Your task to perform on an android device: Show me recent news Image 0: 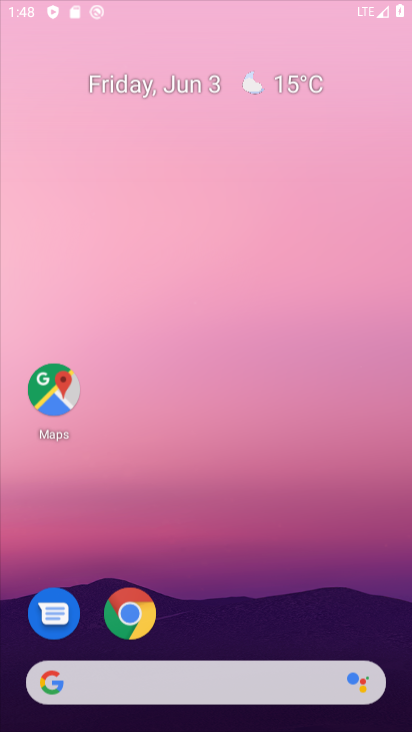
Step 0: click (310, 284)
Your task to perform on an android device: Show me recent news Image 1: 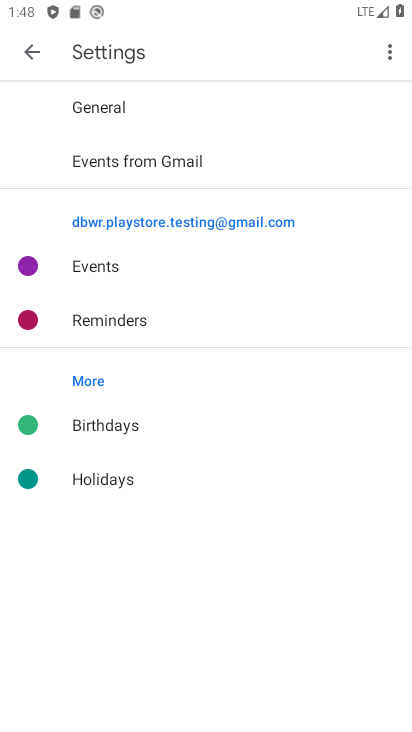
Step 1: press home button
Your task to perform on an android device: Show me recent news Image 2: 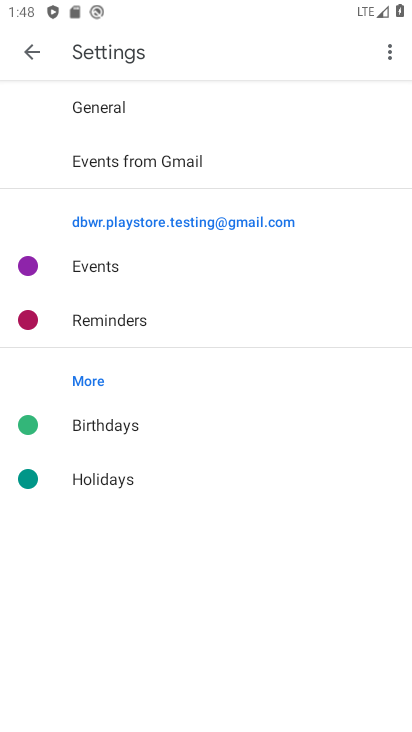
Step 2: drag from (217, 423) to (217, 115)
Your task to perform on an android device: Show me recent news Image 3: 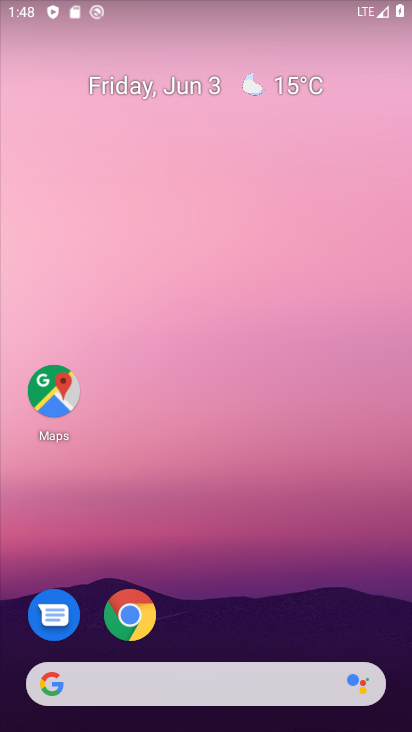
Step 3: drag from (214, 626) to (234, 166)
Your task to perform on an android device: Show me recent news Image 4: 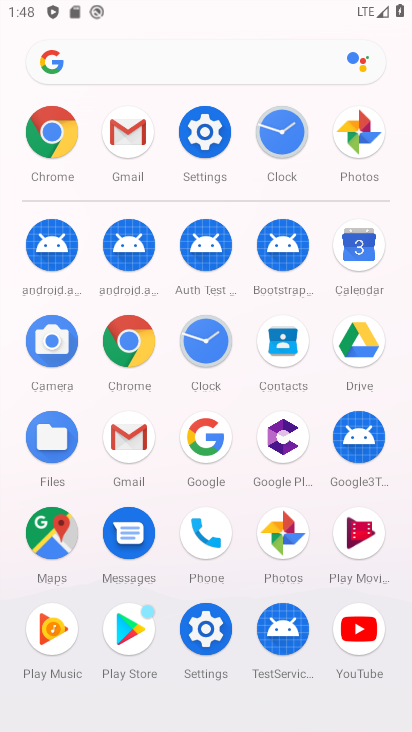
Step 4: click (129, 39)
Your task to perform on an android device: Show me recent news Image 5: 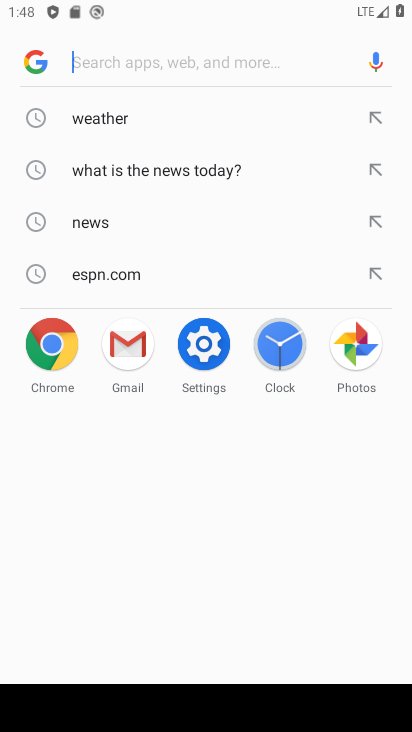
Step 5: click (145, 53)
Your task to perform on an android device: Show me recent news Image 6: 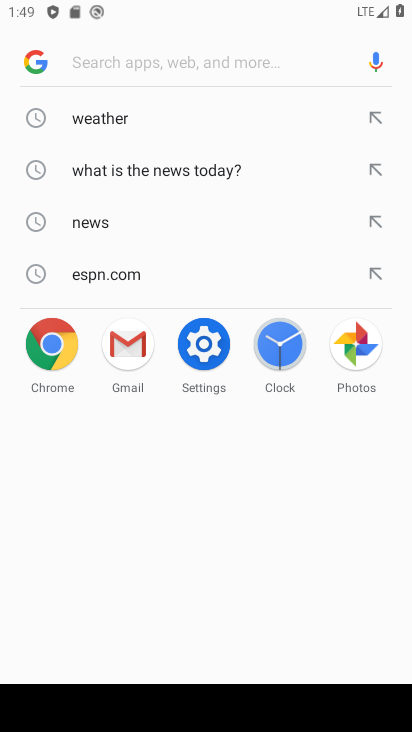
Step 6: type "recent news"
Your task to perform on an android device: Show me recent news Image 7: 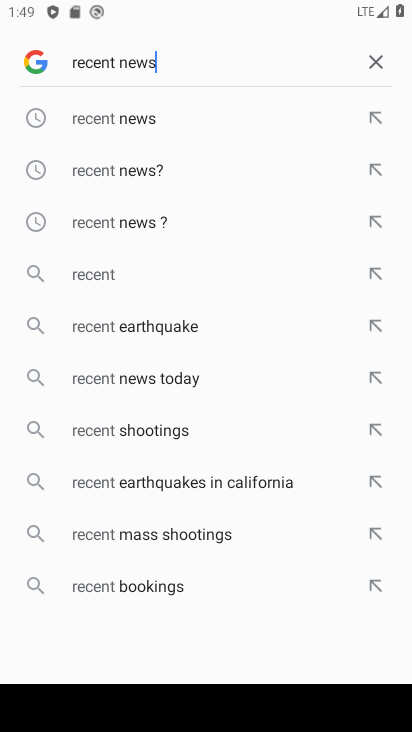
Step 7: type ""
Your task to perform on an android device: Show me recent news Image 8: 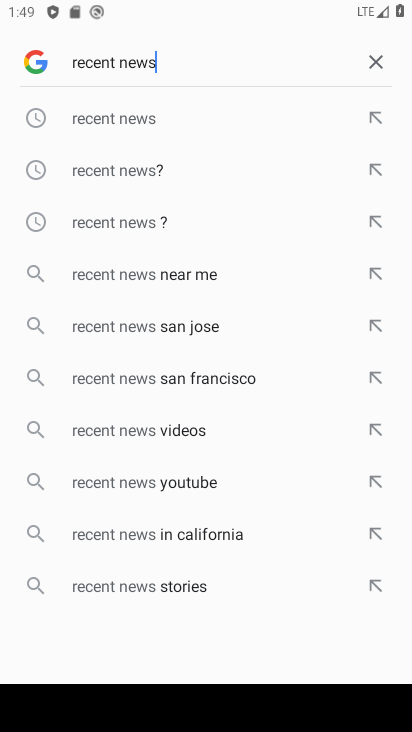
Step 8: click (132, 118)
Your task to perform on an android device: Show me recent news Image 9: 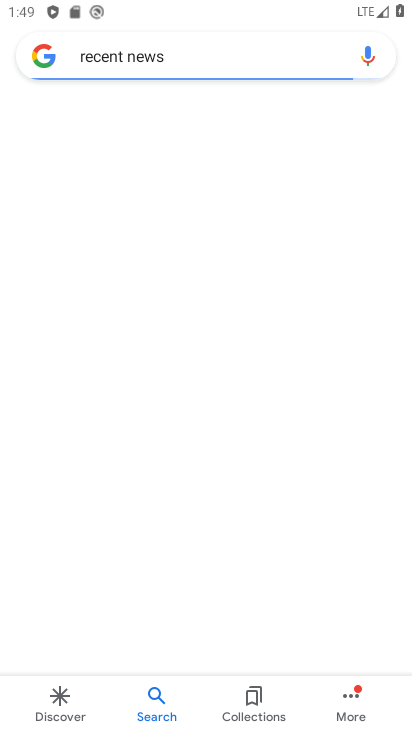
Step 9: task complete